Your task to perform on an android device: allow notifications from all sites in the chrome app Image 0: 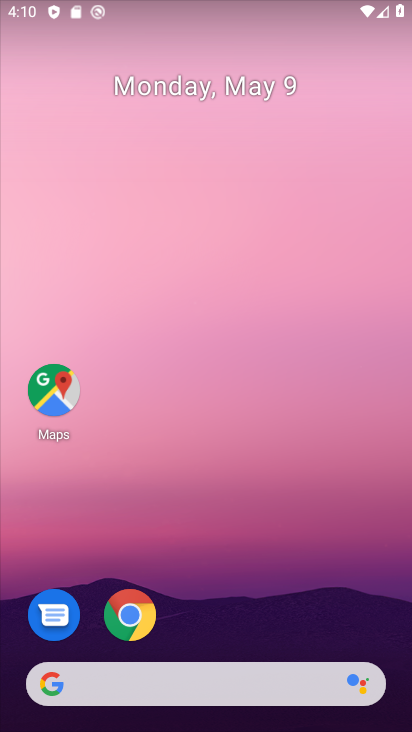
Step 0: click (140, 617)
Your task to perform on an android device: allow notifications from all sites in the chrome app Image 1: 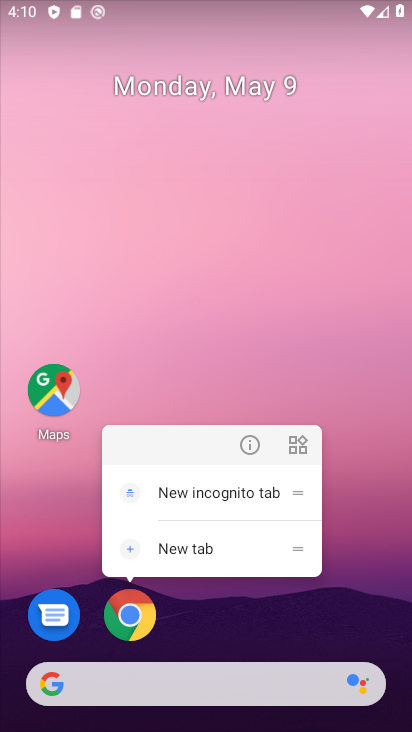
Step 1: click (138, 616)
Your task to perform on an android device: allow notifications from all sites in the chrome app Image 2: 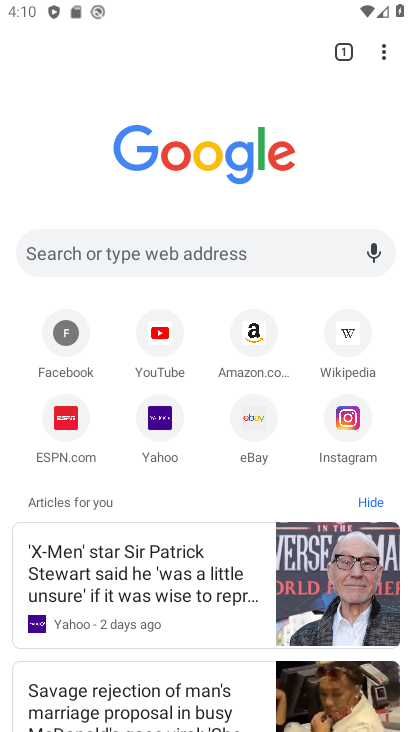
Step 2: click (387, 46)
Your task to perform on an android device: allow notifications from all sites in the chrome app Image 3: 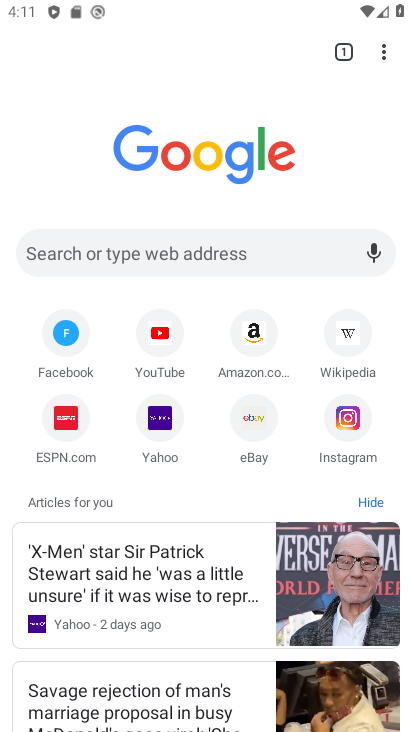
Step 3: click (378, 56)
Your task to perform on an android device: allow notifications from all sites in the chrome app Image 4: 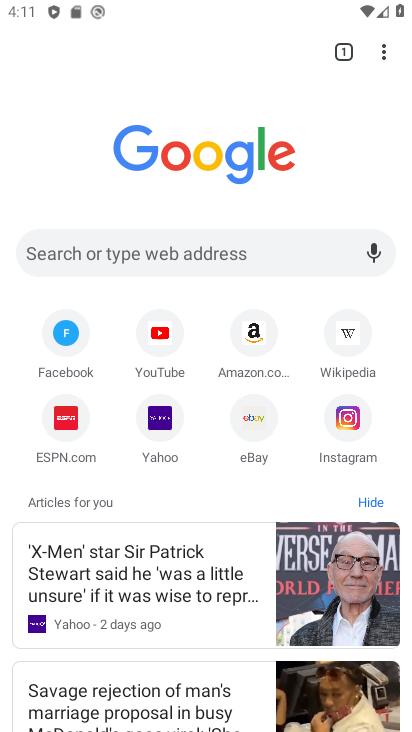
Step 4: click (378, 56)
Your task to perform on an android device: allow notifications from all sites in the chrome app Image 5: 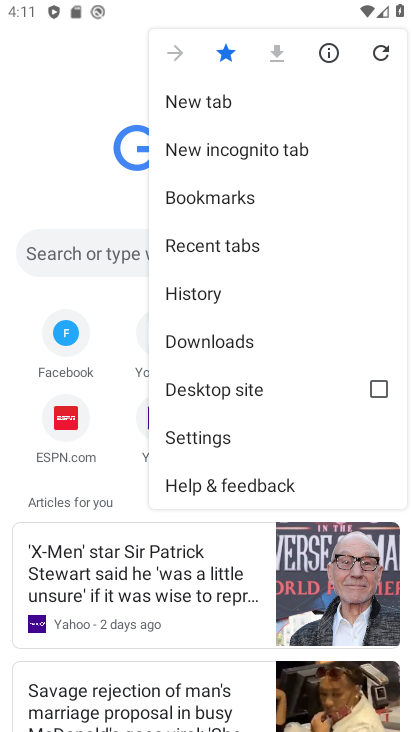
Step 5: click (207, 437)
Your task to perform on an android device: allow notifications from all sites in the chrome app Image 6: 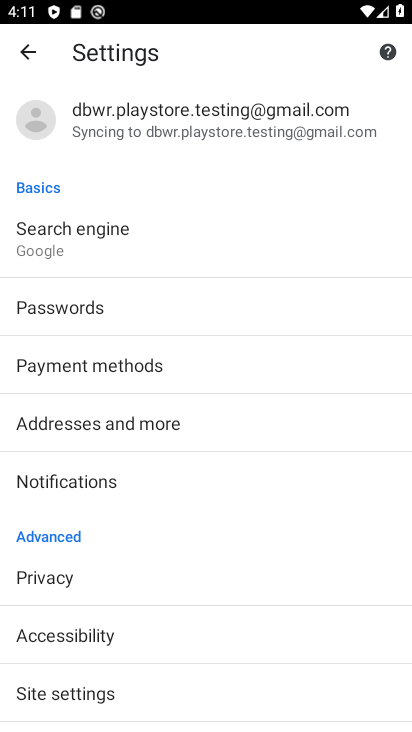
Step 6: drag from (59, 637) to (135, 238)
Your task to perform on an android device: allow notifications from all sites in the chrome app Image 7: 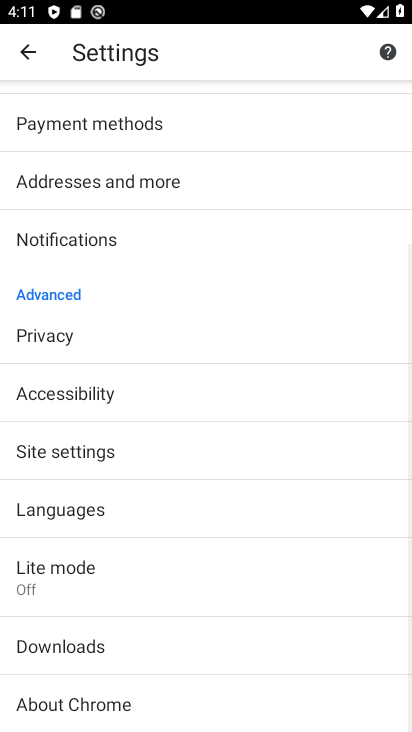
Step 7: click (89, 449)
Your task to perform on an android device: allow notifications from all sites in the chrome app Image 8: 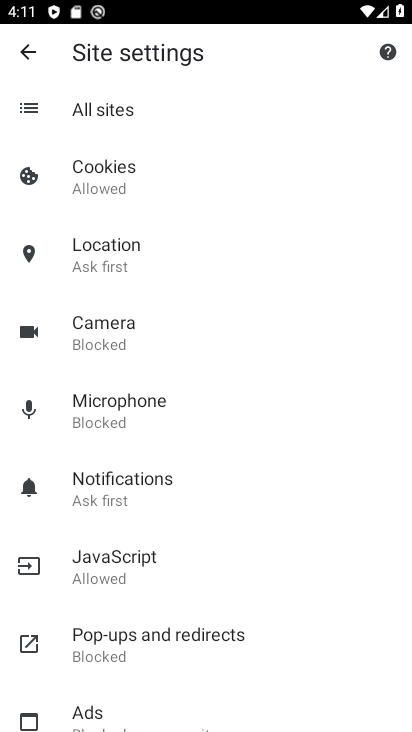
Step 8: click (126, 480)
Your task to perform on an android device: allow notifications from all sites in the chrome app Image 9: 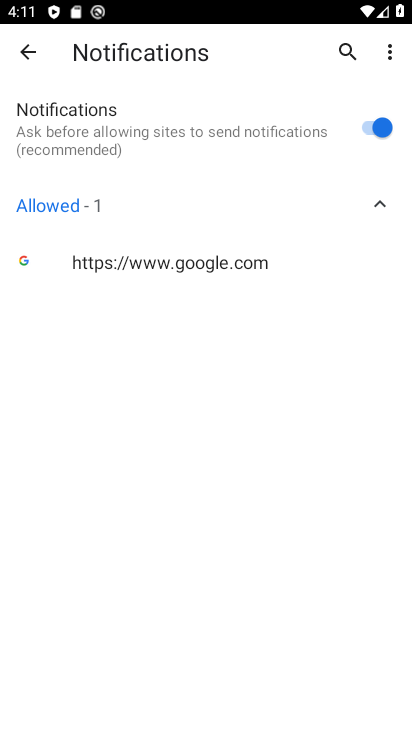
Step 9: task complete